Your task to perform on an android device: Search for pizza restaurants on Maps Image 0: 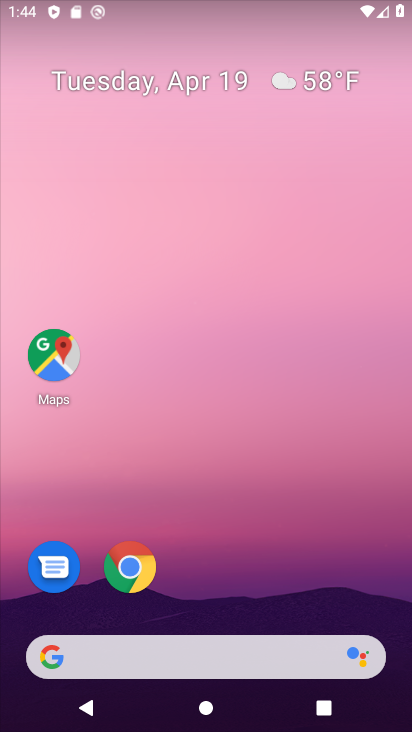
Step 0: click (50, 354)
Your task to perform on an android device: Search for pizza restaurants on Maps Image 1: 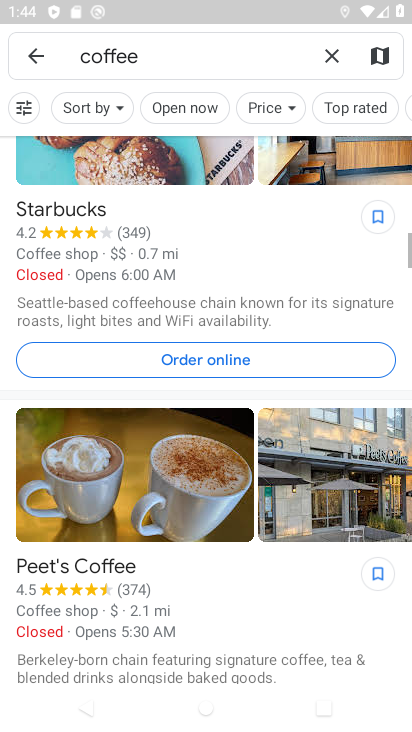
Step 1: click (328, 48)
Your task to perform on an android device: Search for pizza restaurants on Maps Image 2: 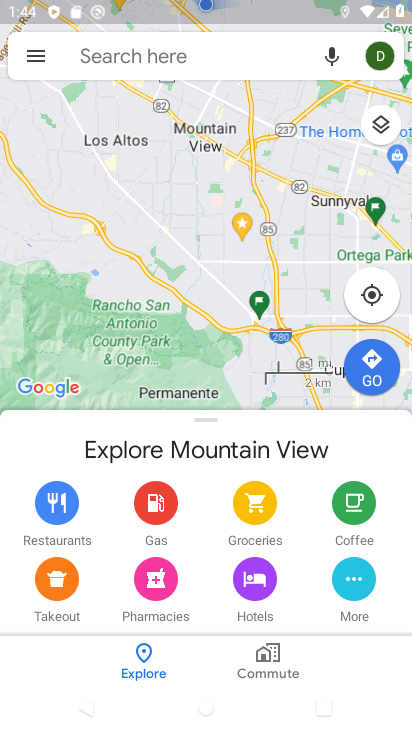
Step 2: click (126, 64)
Your task to perform on an android device: Search for pizza restaurants on Maps Image 3: 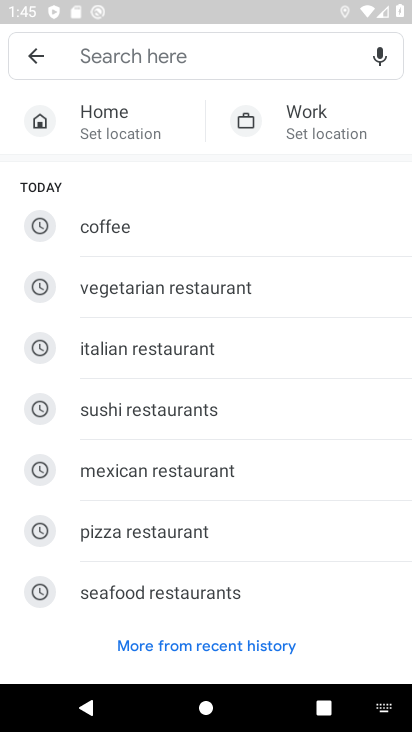
Step 3: type "pizza restaurants"
Your task to perform on an android device: Search for pizza restaurants on Maps Image 4: 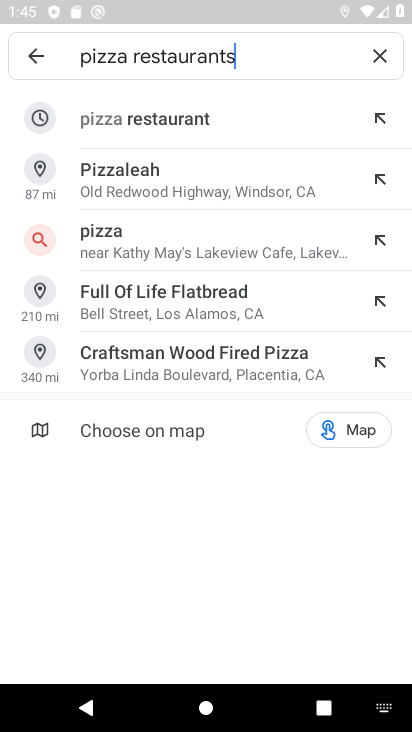
Step 4: click (120, 122)
Your task to perform on an android device: Search for pizza restaurants on Maps Image 5: 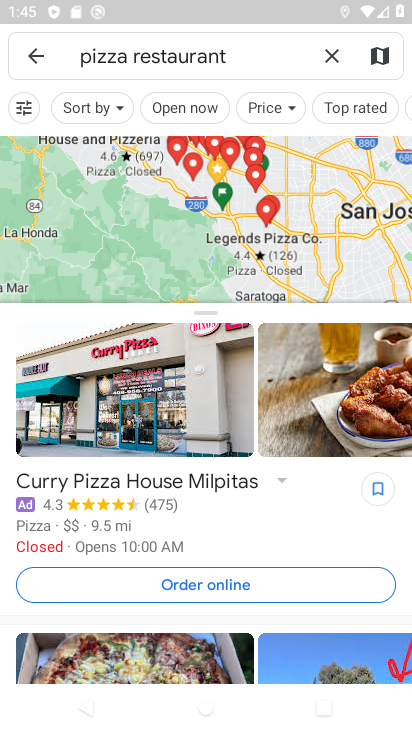
Step 5: task complete